Your task to perform on an android device: What's the weather going to be tomorrow? Image 0: 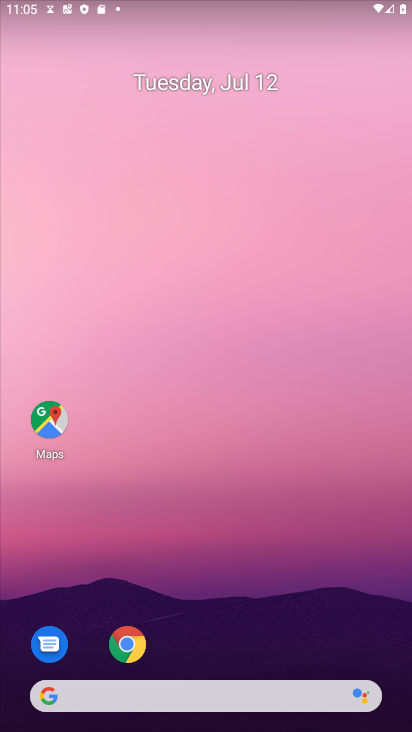
Step 0: click (129, 629)
Your task to perform on an android device: What's the weather going to be tomorrow? Image 1: 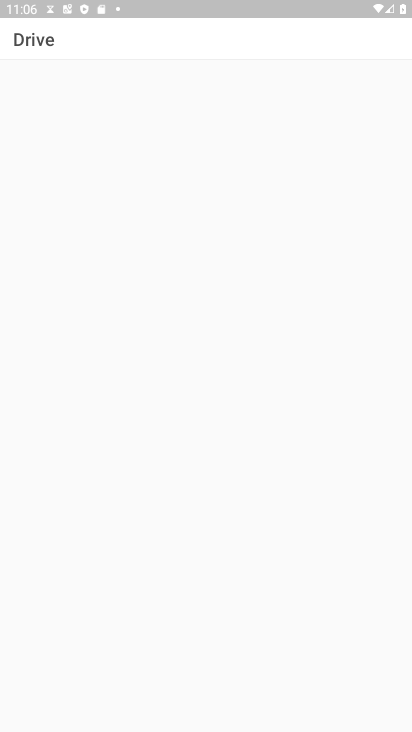
Step 1: press home button
Your task to perform on an android device: What's the weather going to be tomorrow? Image 2: 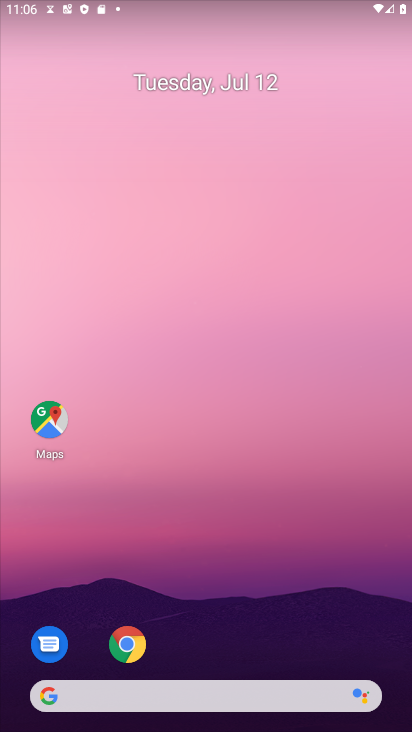
Step 2: click (186, 687)
Your task to perform on an android device: What's the weather going to be tomorrow? Image 3: 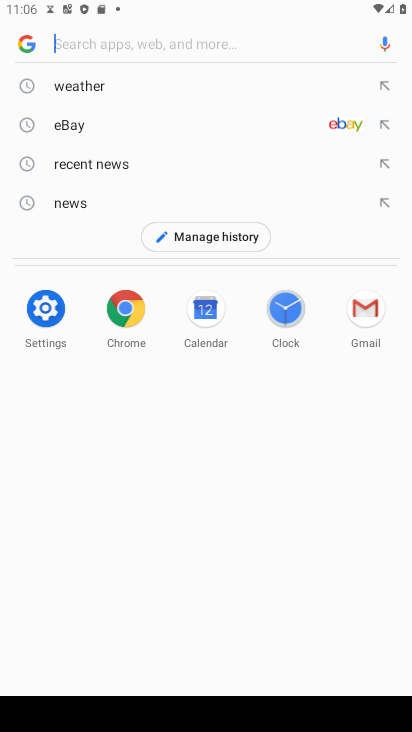
Step 3: click (120, 82)
Your task to perform on an android device: What's the weather going to be tomorrow? Image 4: 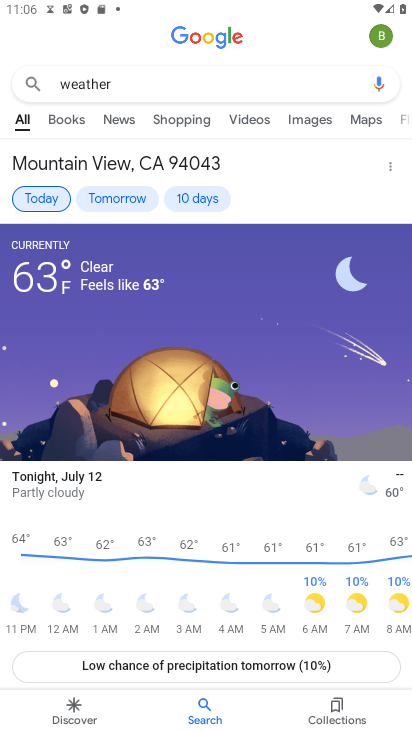
Step 4: drag from (383, 609) to (29, 603)
Your task to perform on an android device: What's the weather going to be tomorrow? Image 5: 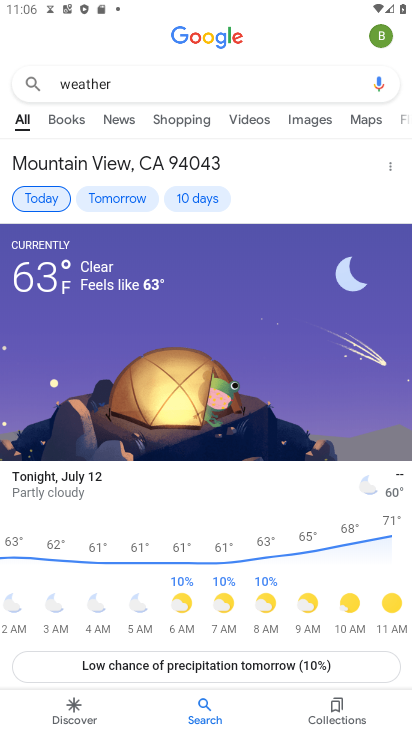
Step 5: click (113, 194)
Your task to perform on an android device: What's the weather going to be tomorrow? Image 6: 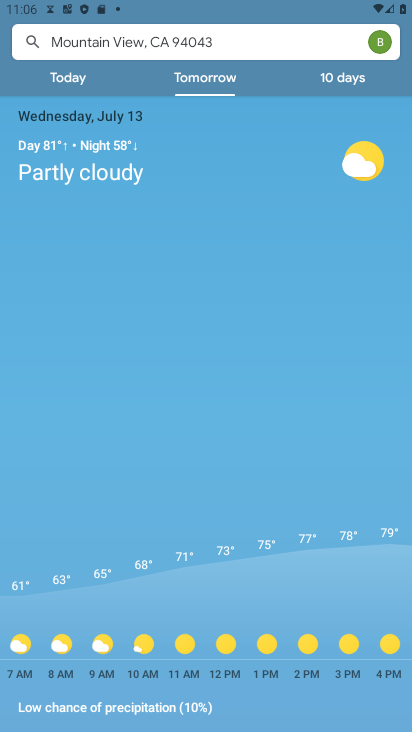
Step 6: task complete